Your task to perform on an android device: Show me popular videos on Youtube Image 0: 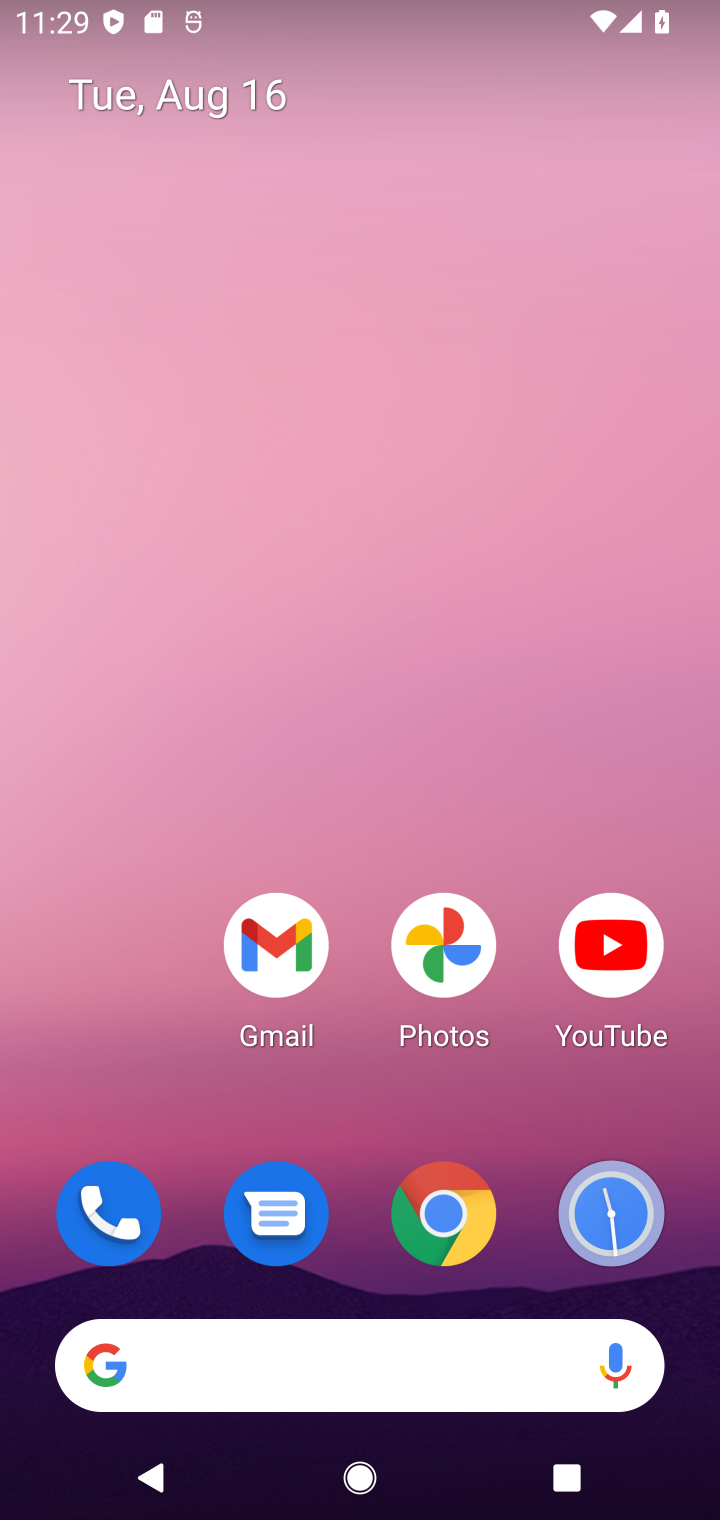
Step 0: click (584, 947)
Your task to perform on an android device: Show me popular videos on Youtube Image 1: 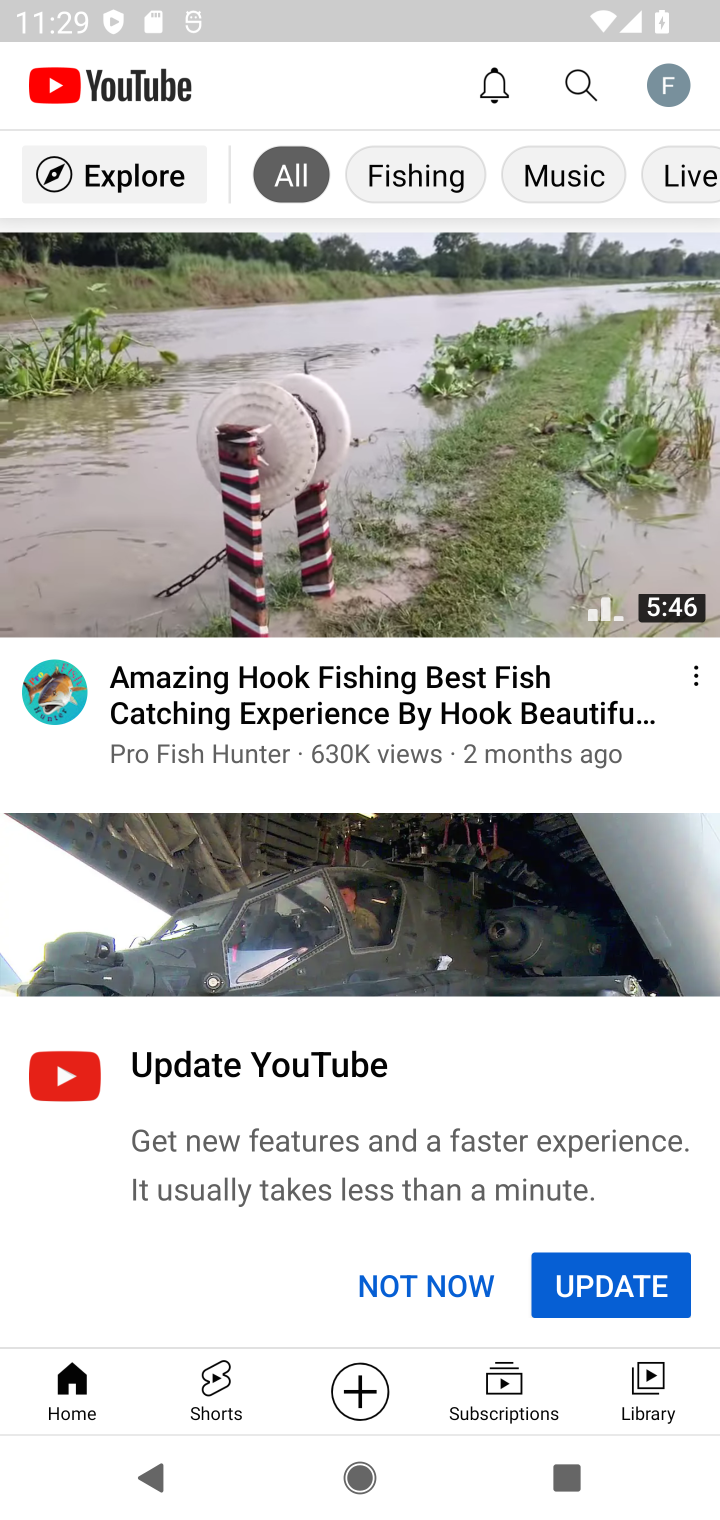
Step 1: drag from (264, 521) to (254, 1328)
Your task to perform on an android device: Show me popular videos on Youtube Image 2: 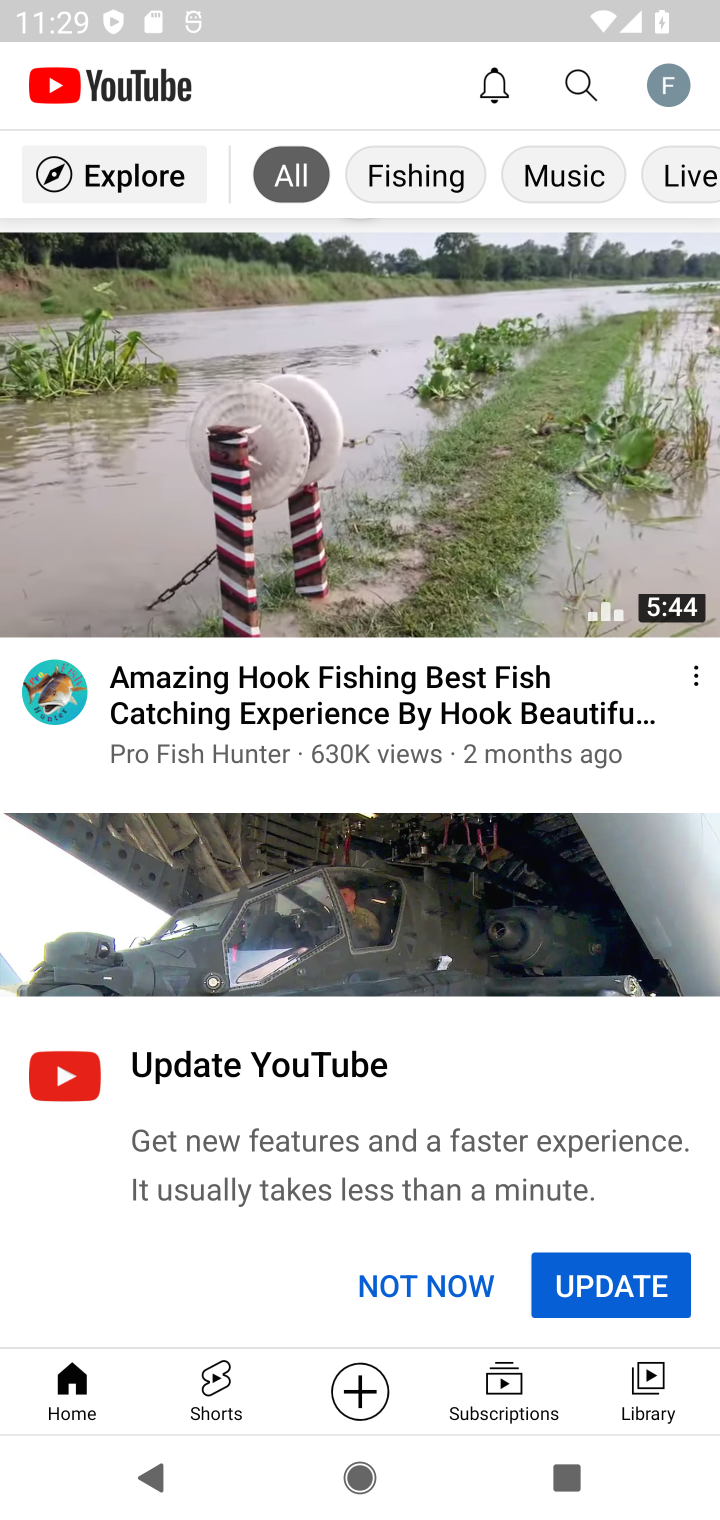
Step 2: click (121, 191)
Your task to perform on an android device: Show me popular videos on Youtube Image 3: 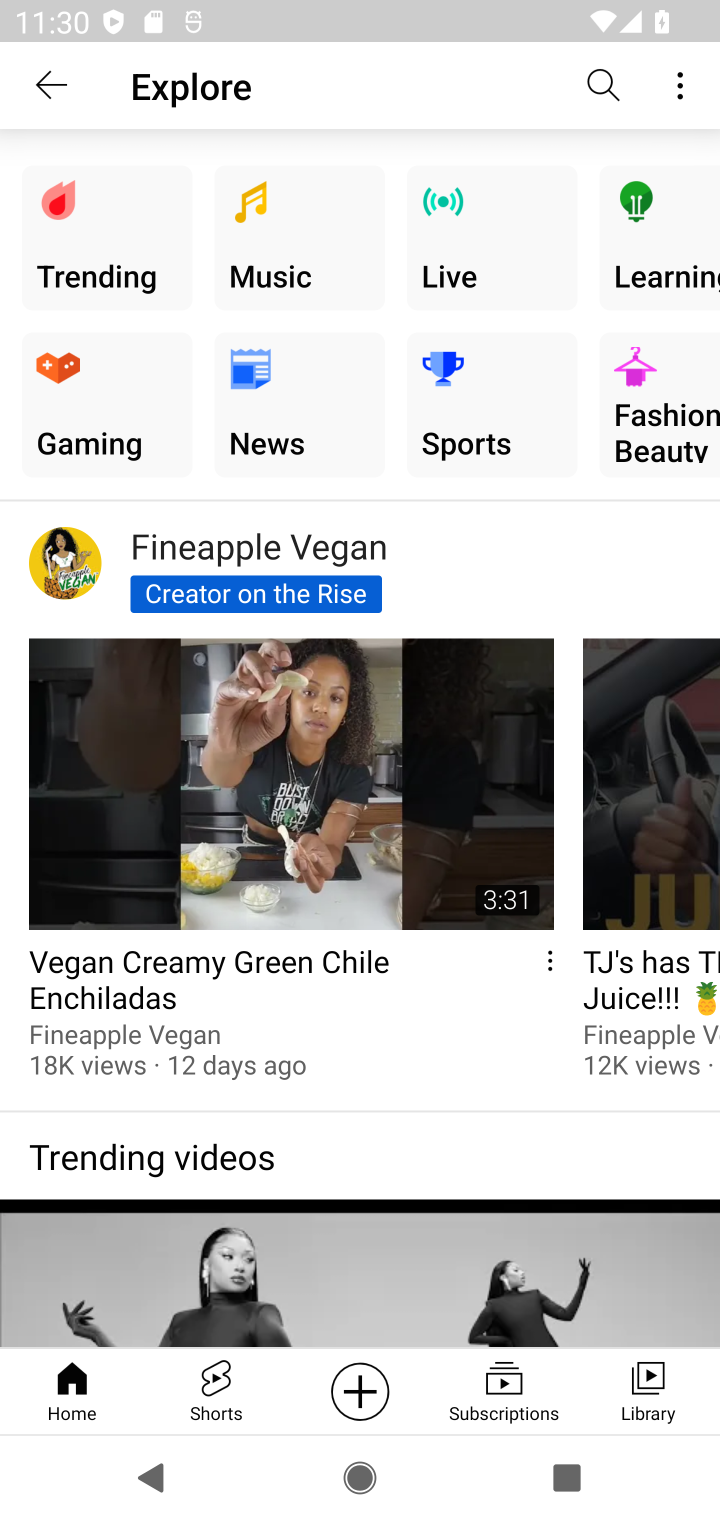
Step 3: task complete